Your task to perform on an android device: open sync settings in chrome Image 0: 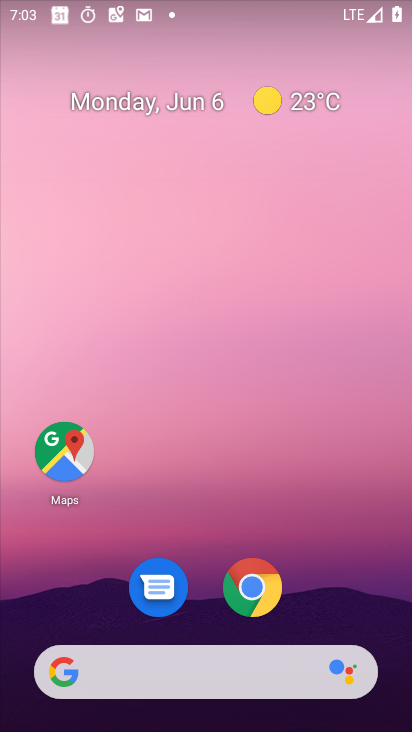
Step 0: drag from (392, 659) to (327, 31)
Your task to perform on an android device: open sync settings in chrome Image 1: 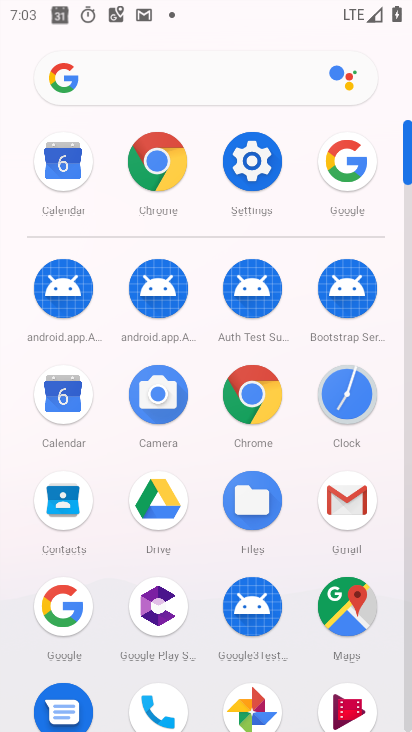
Step 1: click (161, 165)
Your task to perform on an android device: open sync settings in chrome Image 2: 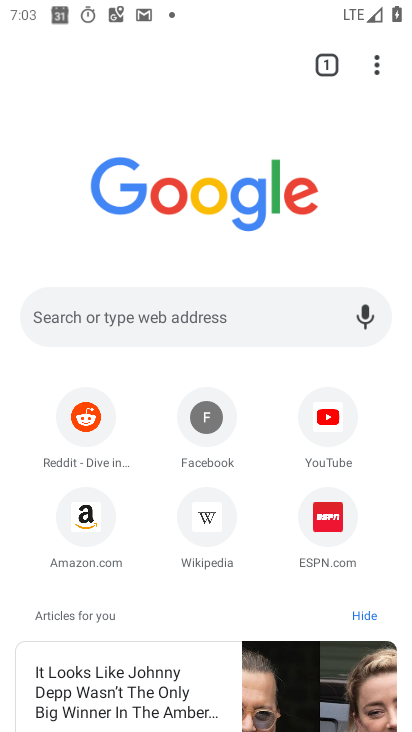
Step 2: click (381, 67)
Your task to perform on an android device: open sync settings in chrome Image 3: 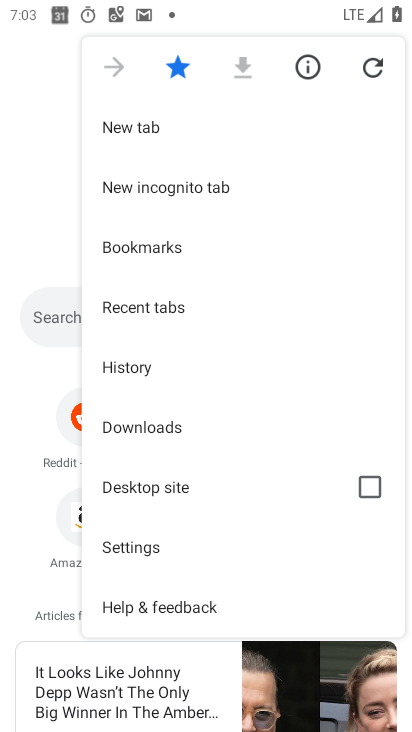
Step 3: click (154, 538)
Your task to perform on an android device: open sync settings in chrome Image 4: 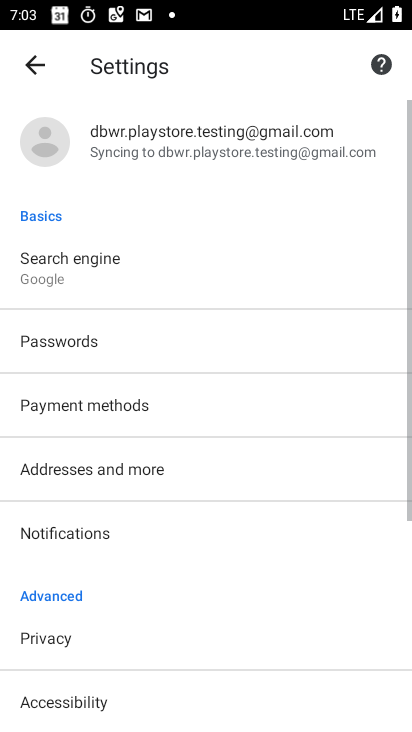
Step 4: drag from (109, 683) to (165, 308)
Your task to perform on an android device: open sync settings in chrome Image 5: 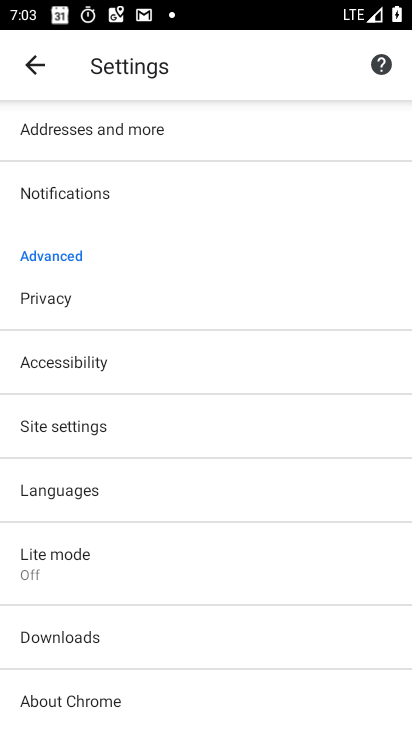
Step 5: click (118, 423)
Your task to perform on an android device: open sync settings in chrome Image 6: 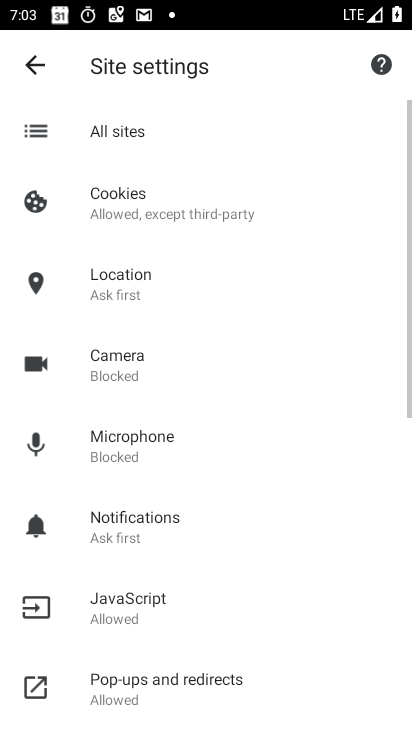
Step 6: drag from (156, 703) to (220, 240)
Your task to perform on an android device: open sync settings in chrome Image 7: 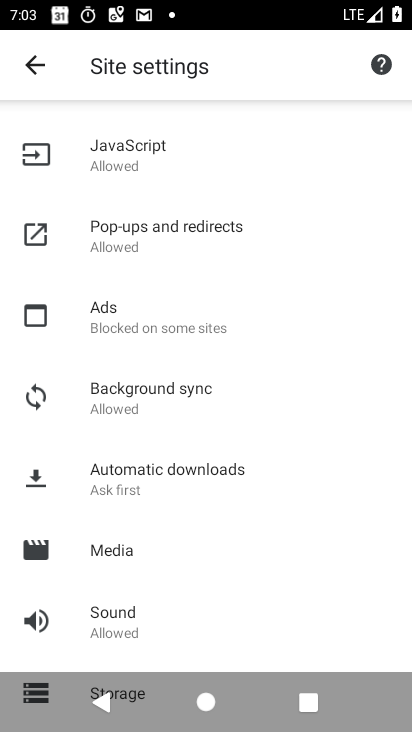
Step 7: click (175, 410)
Your task to perform on an android device: open sync settings in chrome Image 8: 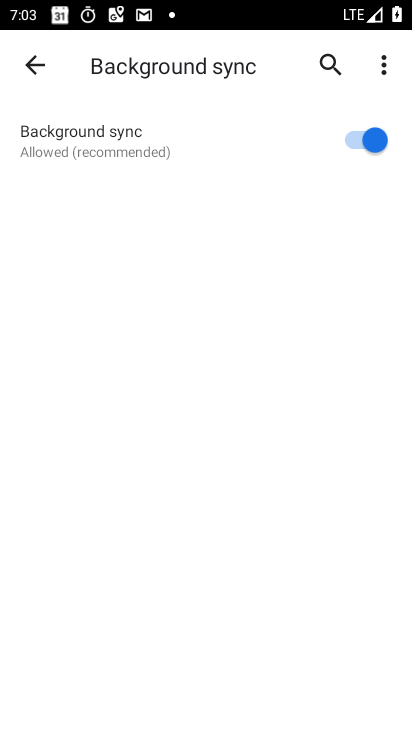
Step 8: task complete